Your task to perform on an android device: Open calendar and show me the third week of next month Image 0: 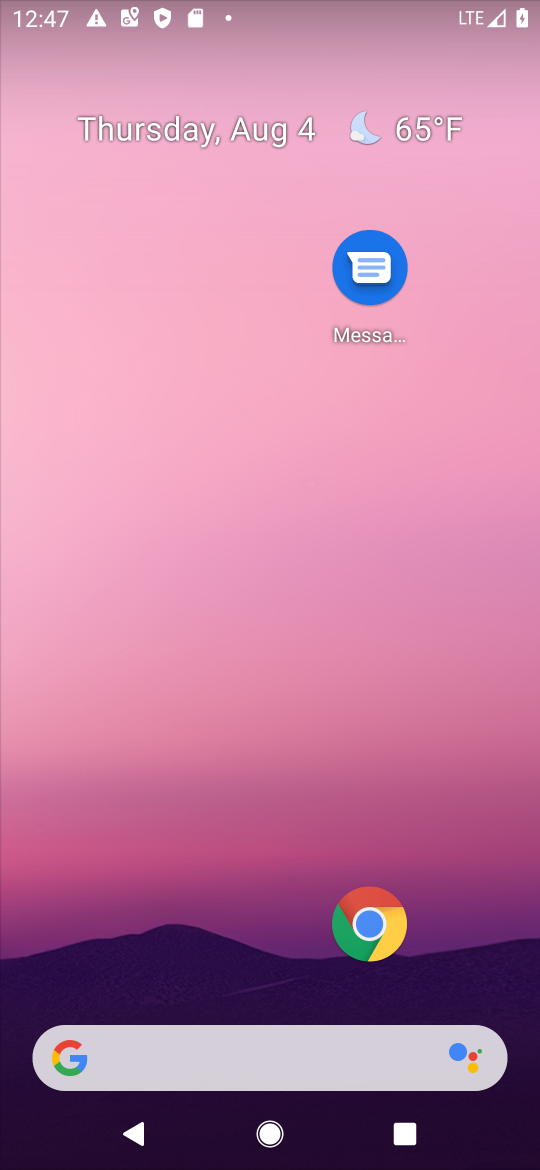
Step 0: drag from (189, 526) to (210, 331)
Your task to perform on an android device: Open calendar and show me the third week of next month Image 1: 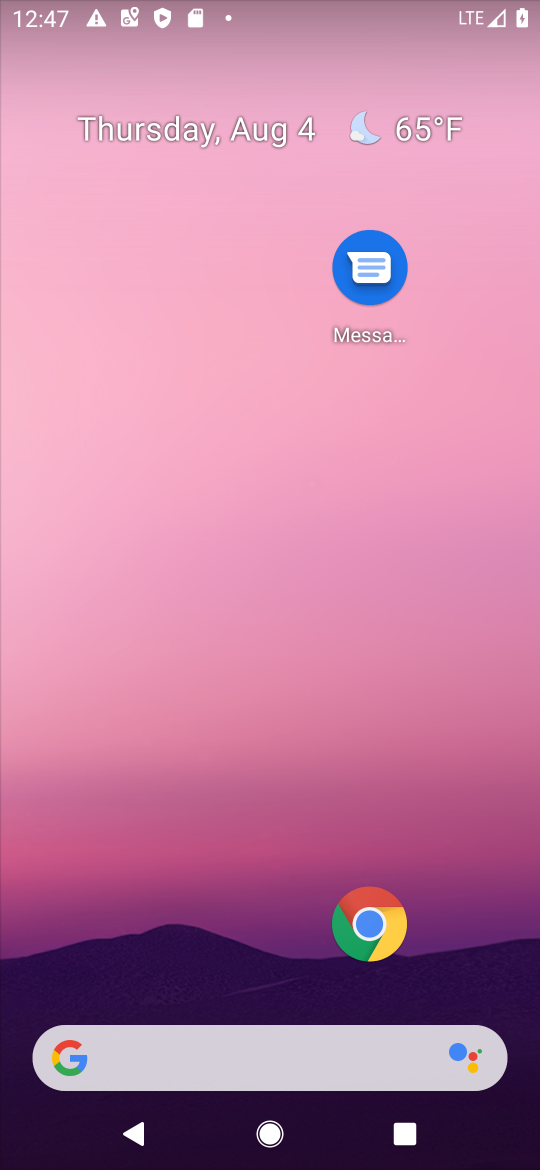
Step 1: drag from (174, 709) to (267, 171)
Your task to perform on an android device: Open calendar and show me the third week of next month Image 2: 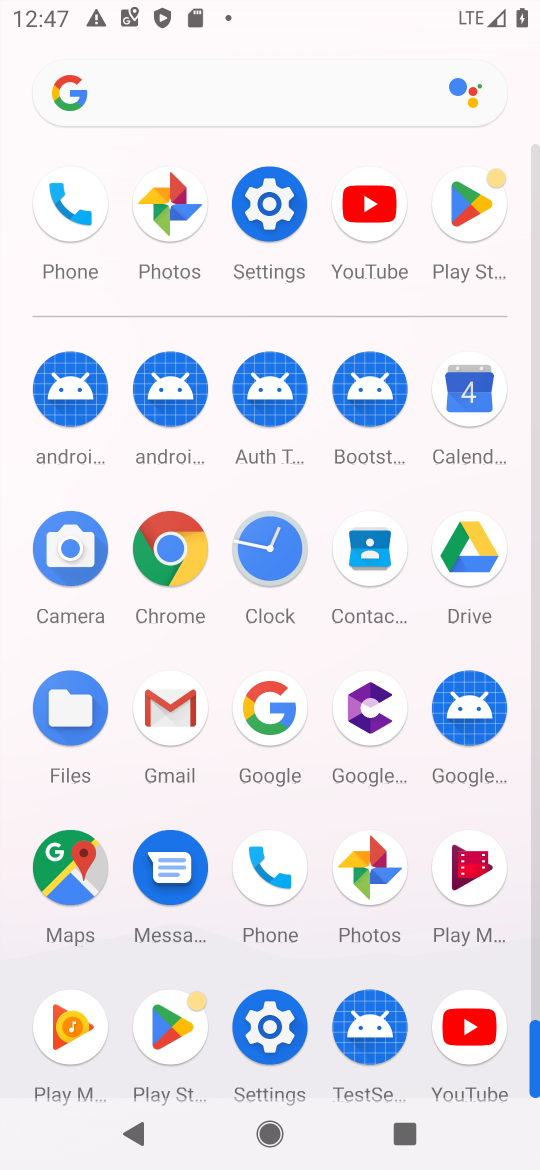
Step 2: click (455, 395)
Your task to perform on an android device: Open calendar and show me the third week of next month Image 3: 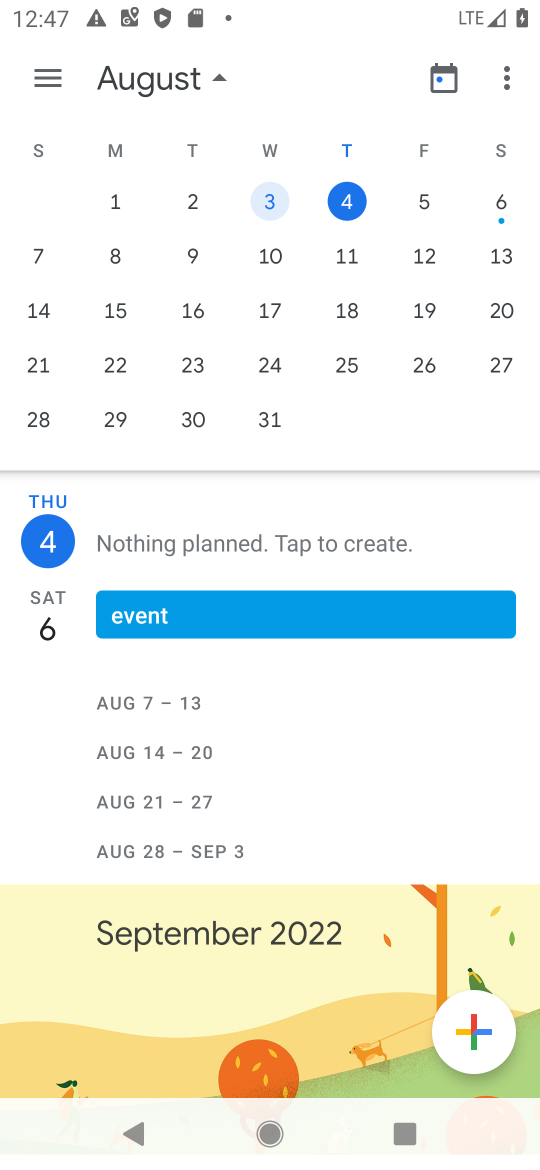
Step 3: drag from (404, 304) to (60, 297)
Your task to perform on an android device: Open calendar and show me the third week of next month Image 4: 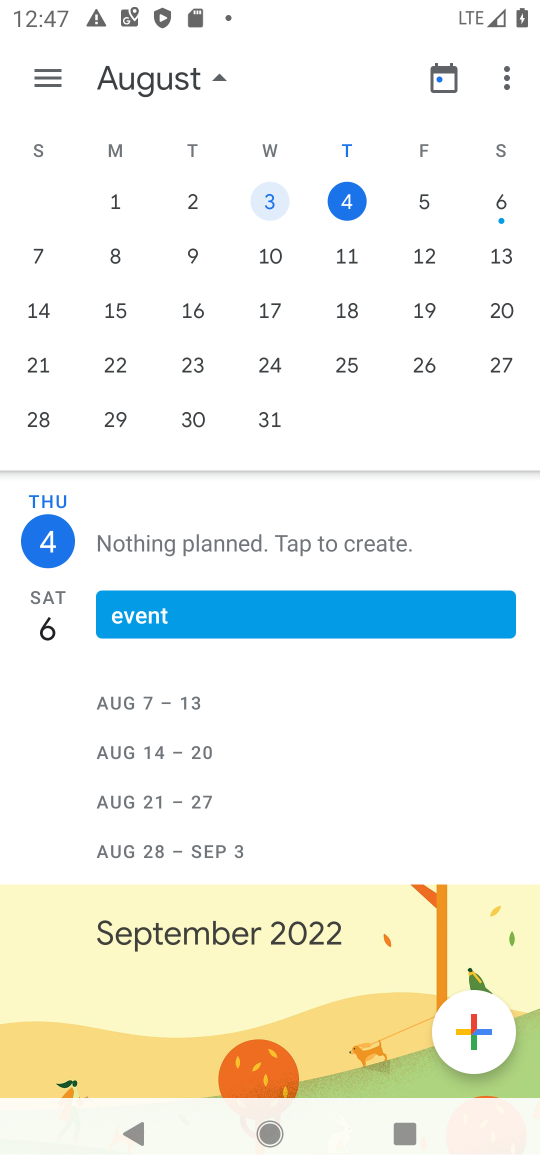
Step 4: click (121, 315)
Your task to perform on an android device: Open calendar and show me the third week of next month Image 5: 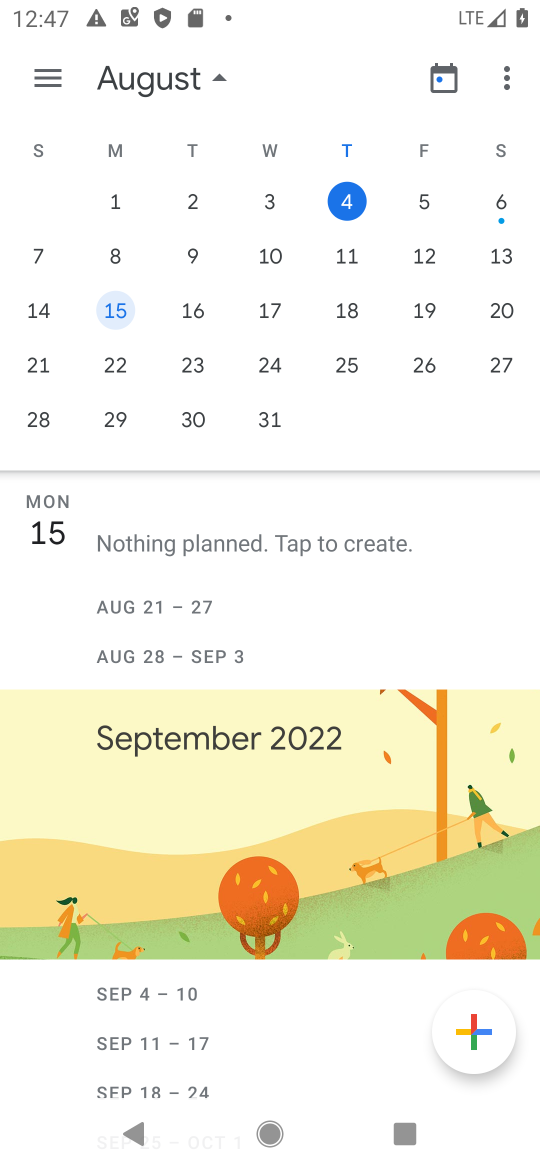
Step 5: task complete